Your task to perform on an android device: empty trash in google photos Image 0: 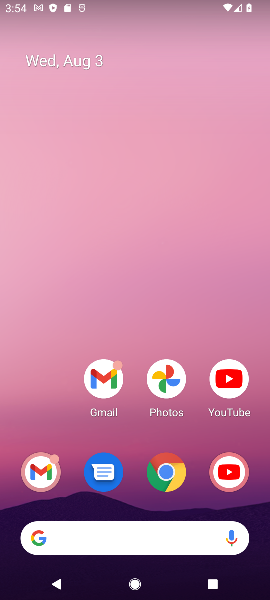
Step 0: drag from (76, 423) to (38, 16)
Your task to perform on an android device: empty trash in google photos Image 1: 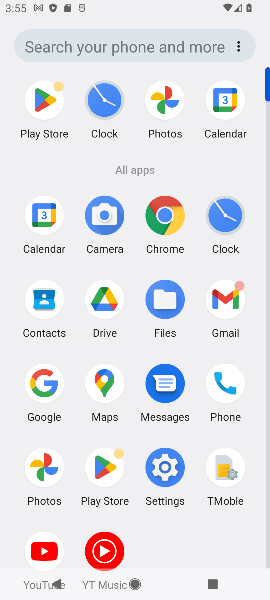
Step 1: click (41, 470)
Your task to perform on an android device: empty trash in google photos Image 2: 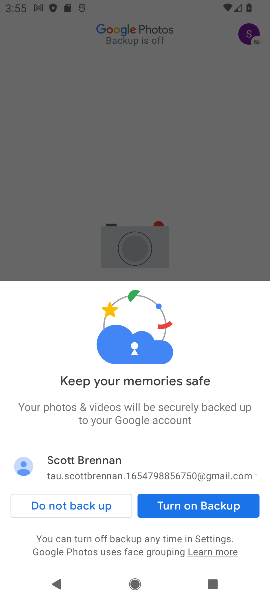
Step 2: click (202, 502)
Your task to perform on an android device: empty trash in google photos Image 3: 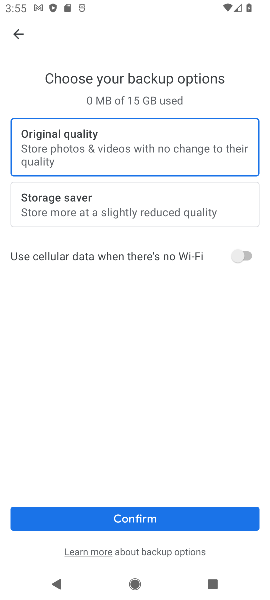
Step 3: click (182, 516)
Your task to perform on an android device: empty trash in google photos Image 4: 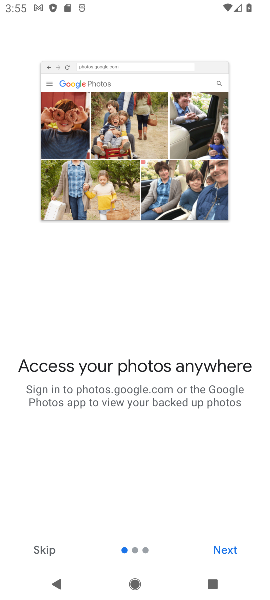
Step 4: click (218, 550)
Your task to perform on an android device: empty trash in google photos Image 5: 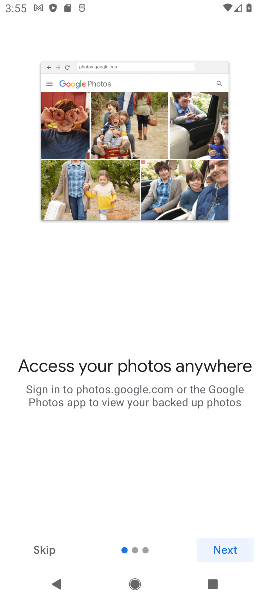
Step 5: click (218, 550)
Your task to perform on an android device: empty trash in google photos Image 6: 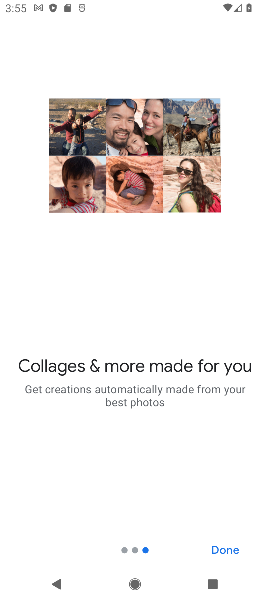
Step 6: click (218, 550)
Your task to perform on an android device: empty trash in google photos Image 7: 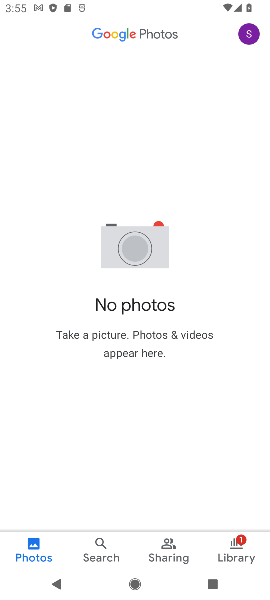
Step 7: click (255, 549)
Your task to perform on an android device: empty trash in google photos Image 8: 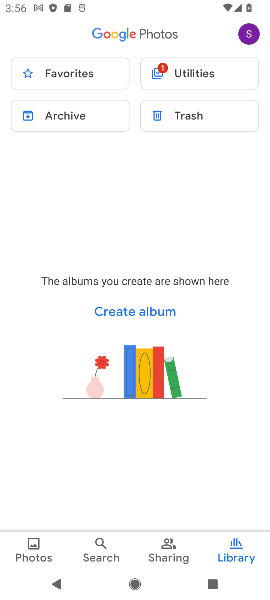
Step 8: click (183, 116)
Your task to perform on an android device: empty trash in google photos Image 9: 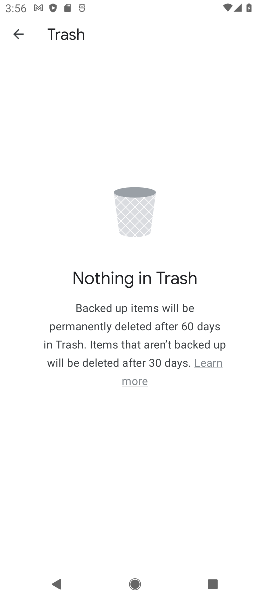
Step 9: task complete